Your task to perform on an android device: Open the map Image 0: 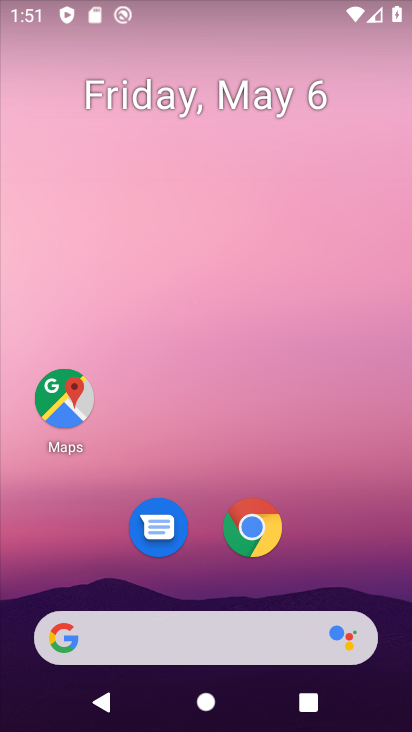
Step 0: click (70, 393)
Your task to perform on an android device: Open the map Image 1: 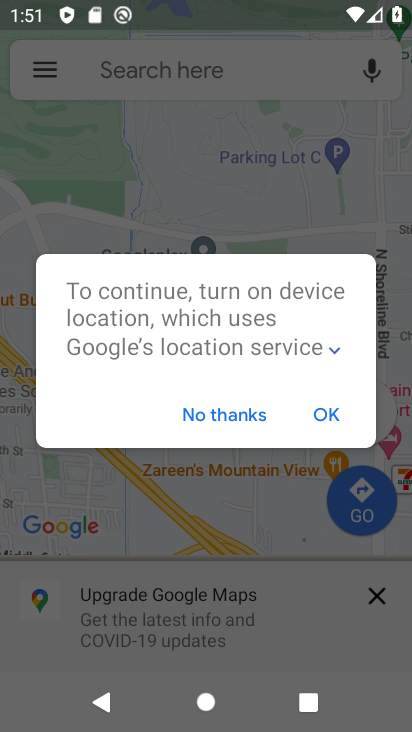
Step 1: click (321, 419)
Your task to perform on an android device: Open the map Image 2: 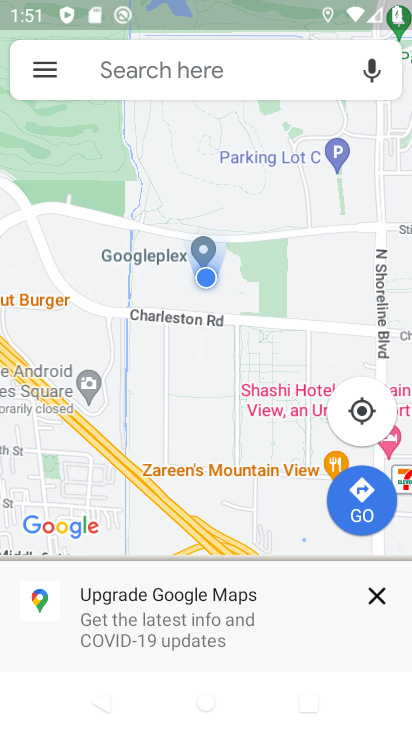
Step 2: task complete